Your task to perform on an android device: Open Google Maps and go to "Timeline" Image 0: 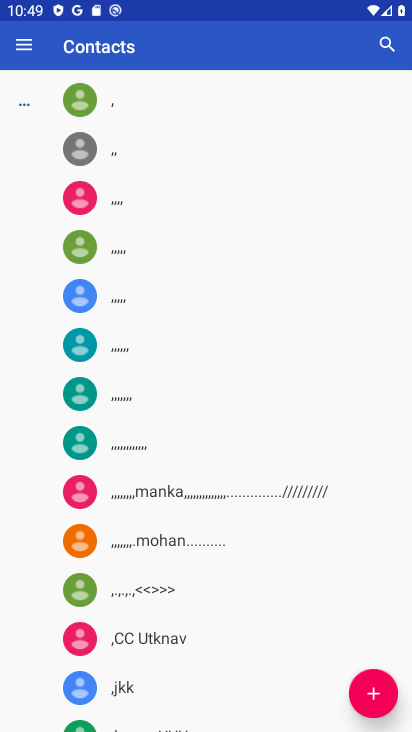
Step 0: press back button
Your task to perform on an android device: Open Google Maps and go to "Timeline" Image 1: 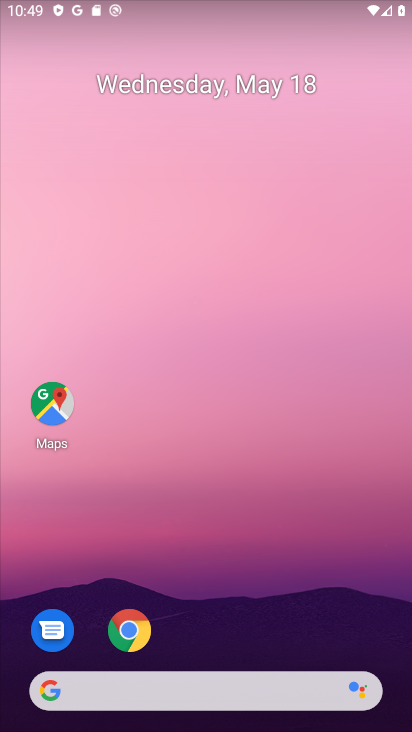
Step 1: click (60, 406)
Your task to perform on an android device: Open Google Maps and go to "Timeline" Image 2: 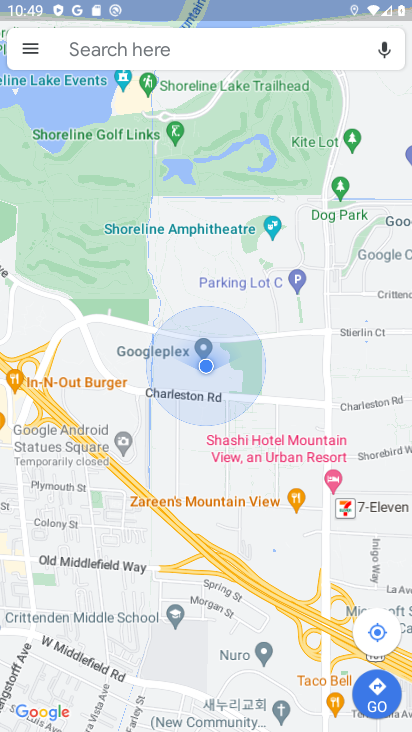
Step 2: click (36, 45)
Your task to perform on an android device: Open Google Maps and go to "Timeline" Image 3: 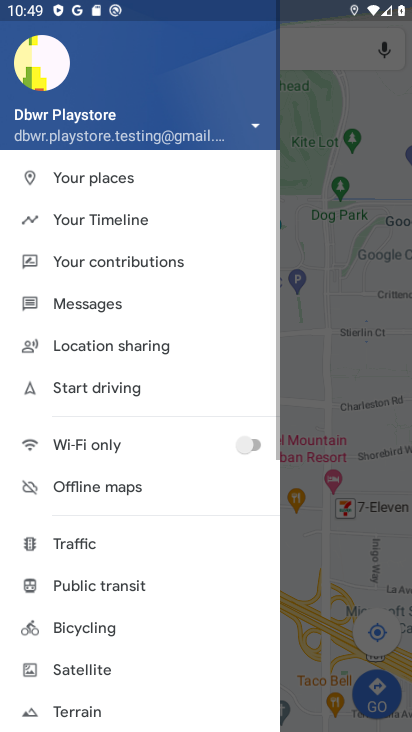
Step 3: click (74, 217)
Your task to perform on an android device: Open Google Maps and go to "Timeline" Image 4: 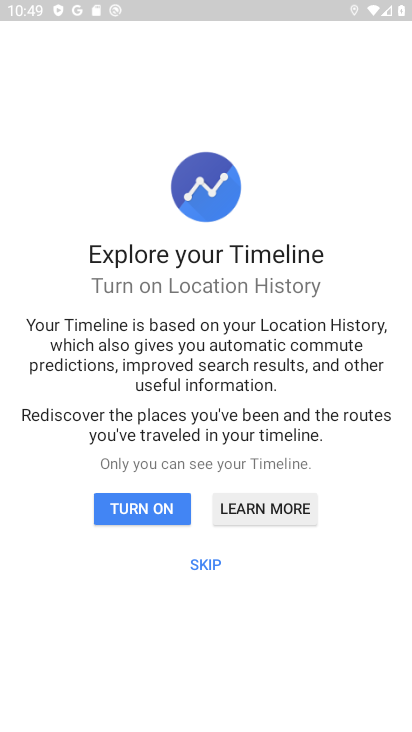
Step 4: click (214, 562)
Your task to perform on an android device: Open Google Maps and go to "Timeline" Image 5: 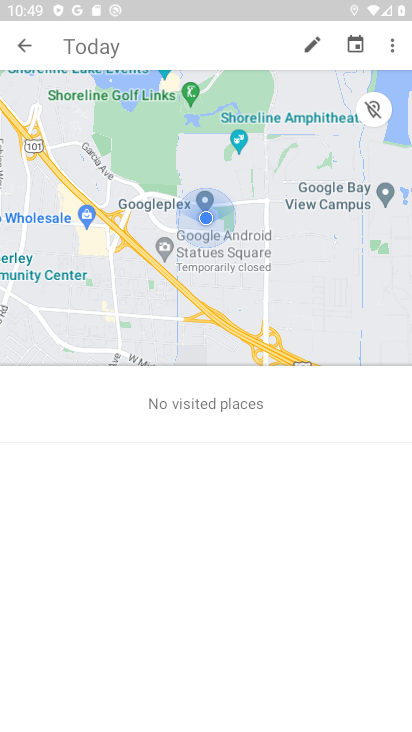
Step 5: task complete